Your task to perform on an android device: open app "AliExpress" (install if not already installed) Image 0: 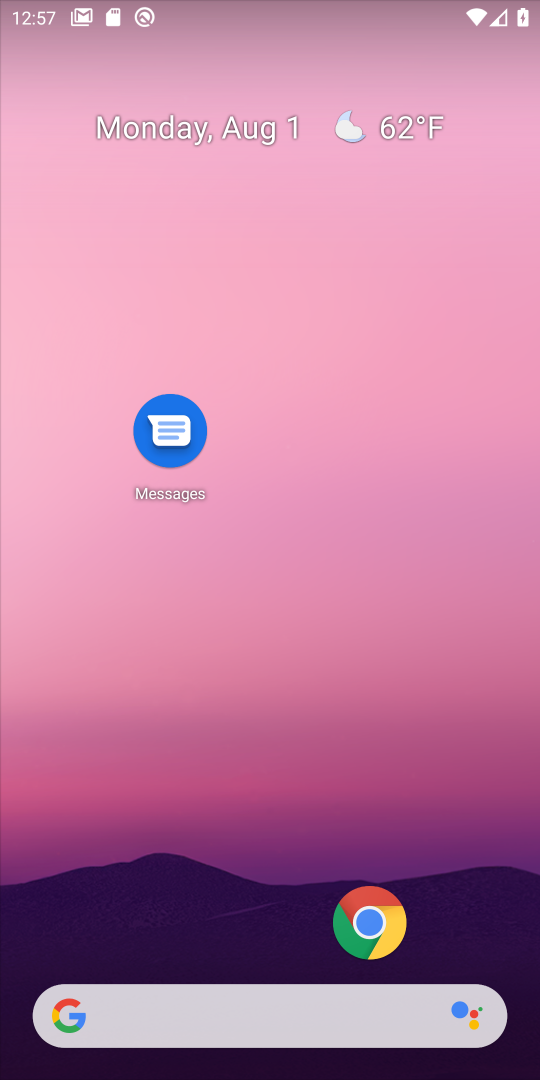
Step 0: drag from (235, 915) to (255, 287)
Your task to perform on an android device: open app "AliExpress" (install if not already installed) Image 1: 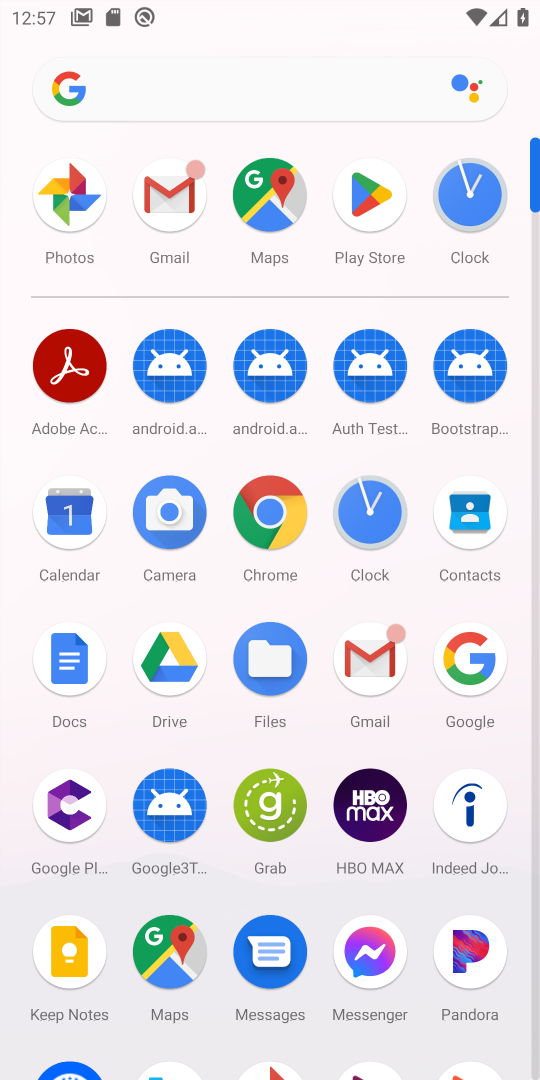
Step 1: click (379, 217)
Your task to perform on an android device: open app "AliExpress" (install if not already installed) Image 2: 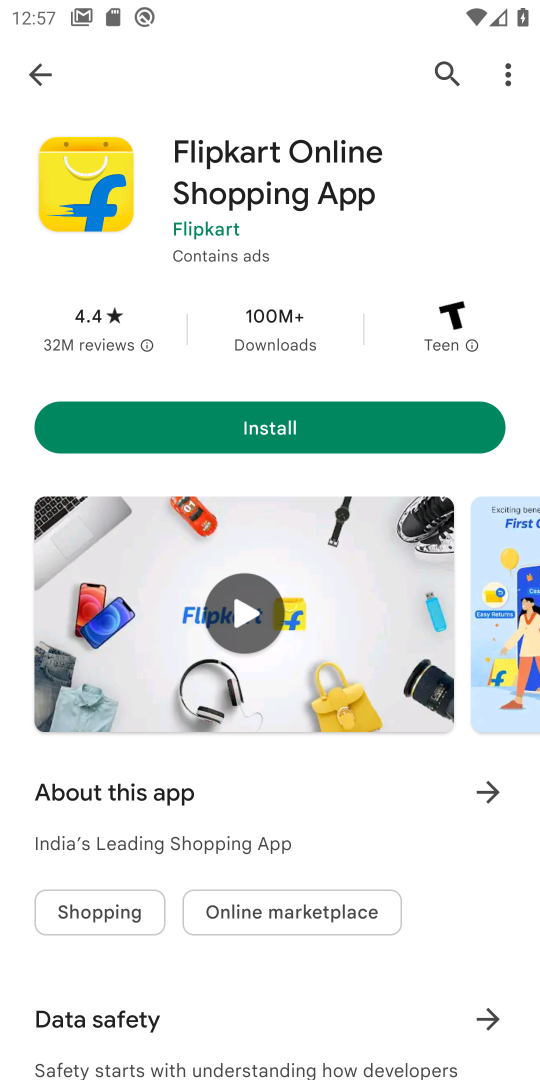
Step 2: click (431, 73)
Your task to perform on an android device: open app "AliExpress" (install if not already installed) Image 3: 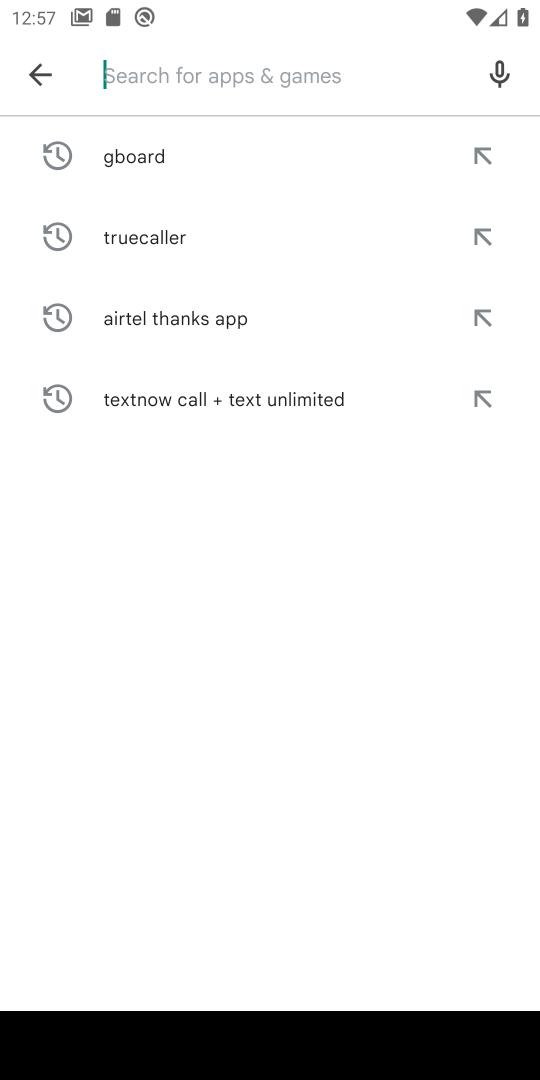
Step 3: type "AliExpress"
Your task to perform on an android device: open app "AliExpress" (install if not already installed) Image 4: 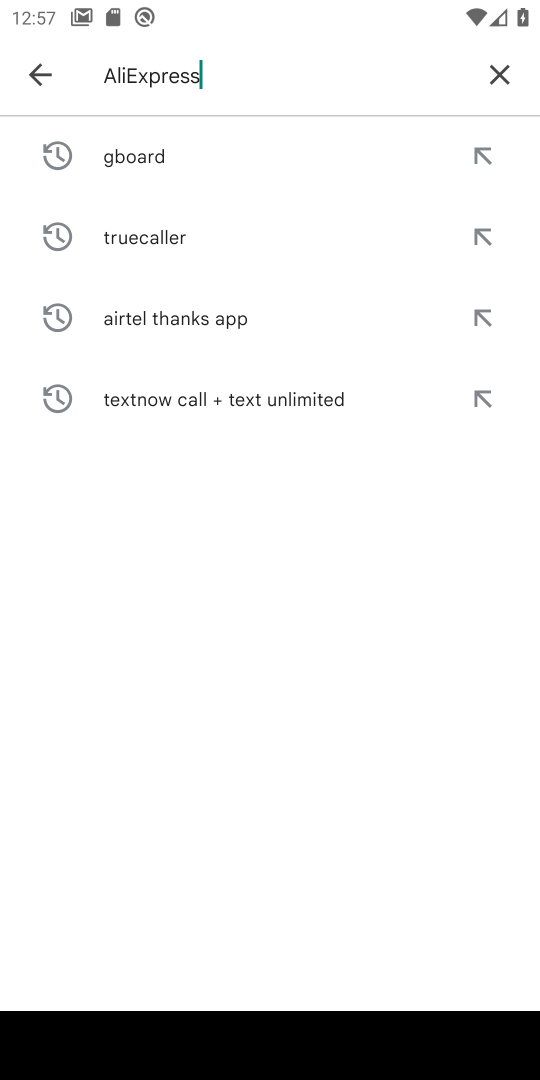
Step 4: type ""
Your task to perform on an android device: open app "AliExpress" (install if not already installed) Image 5: 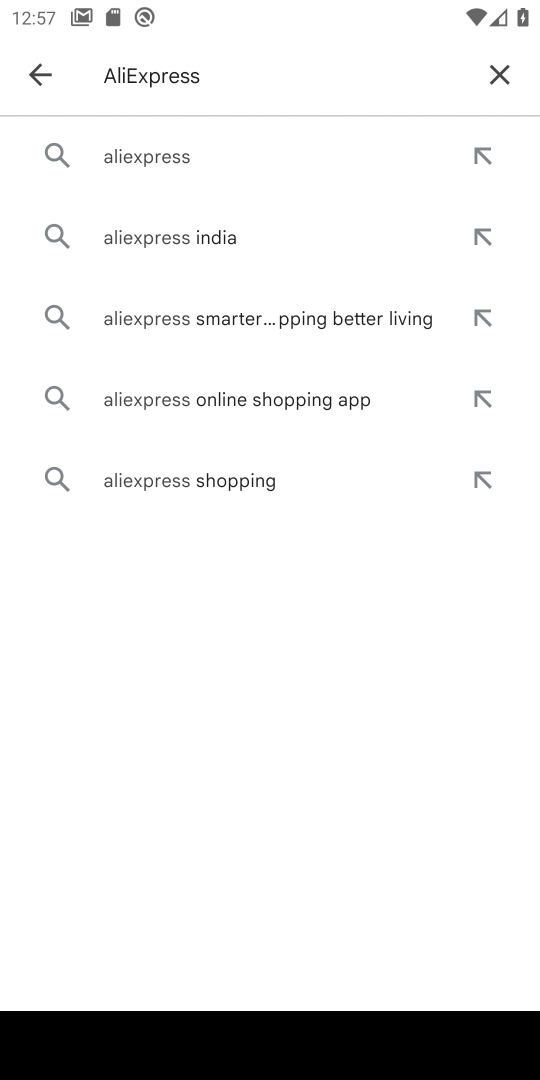
Step 5: click (197, 172)
Your task to perform on an android device: open app "AliExpress" (install if not already installed) Image 6: 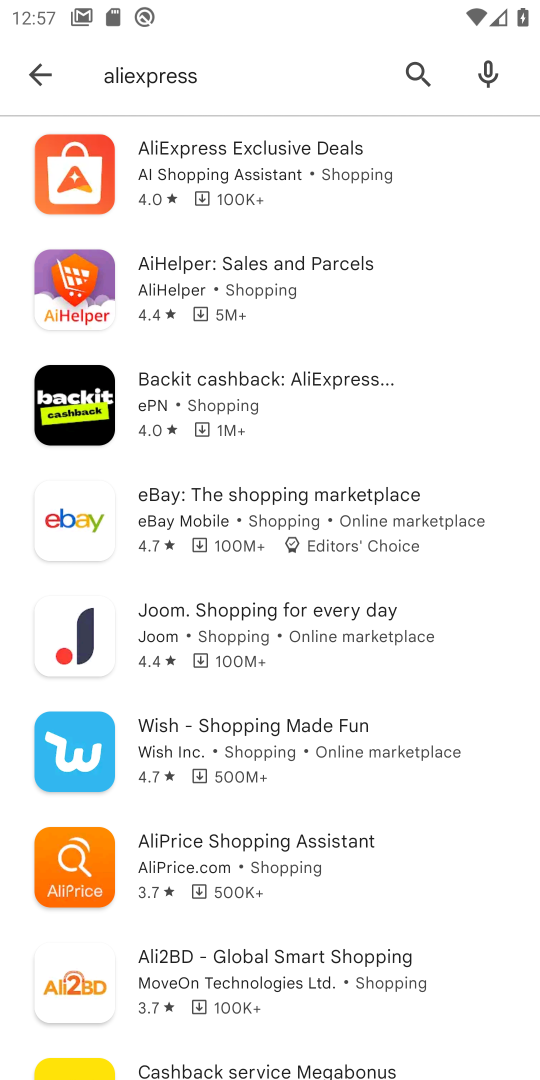
Step 6: click (298, 188)
Your task to perform on an android device: open app "AliExpress" (install if not already installed) Image 7: 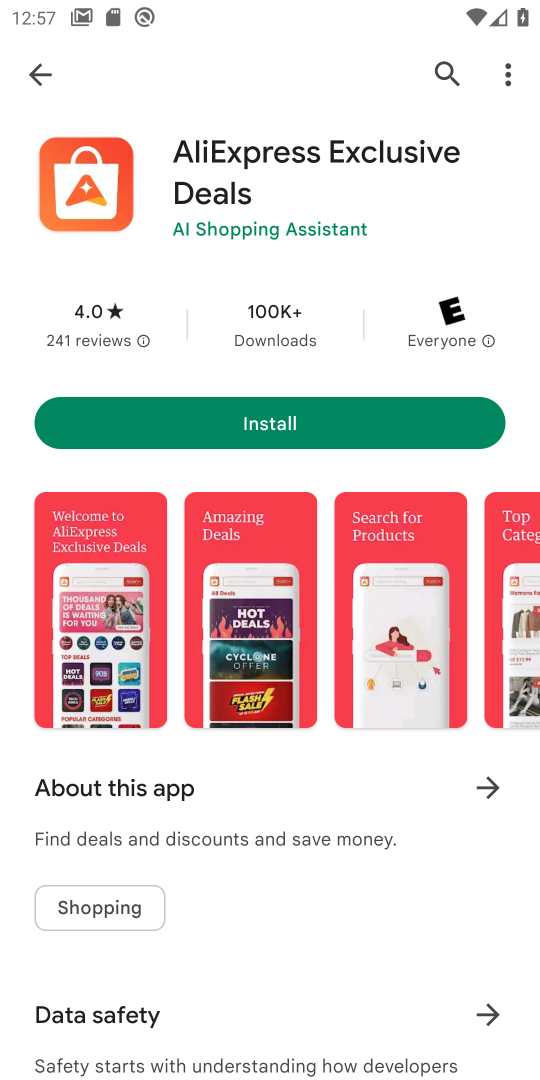
Step 7: click (275, 423)
Your task to perform on an android device: open app "AliExpress" (install if not already installed) Image 8: 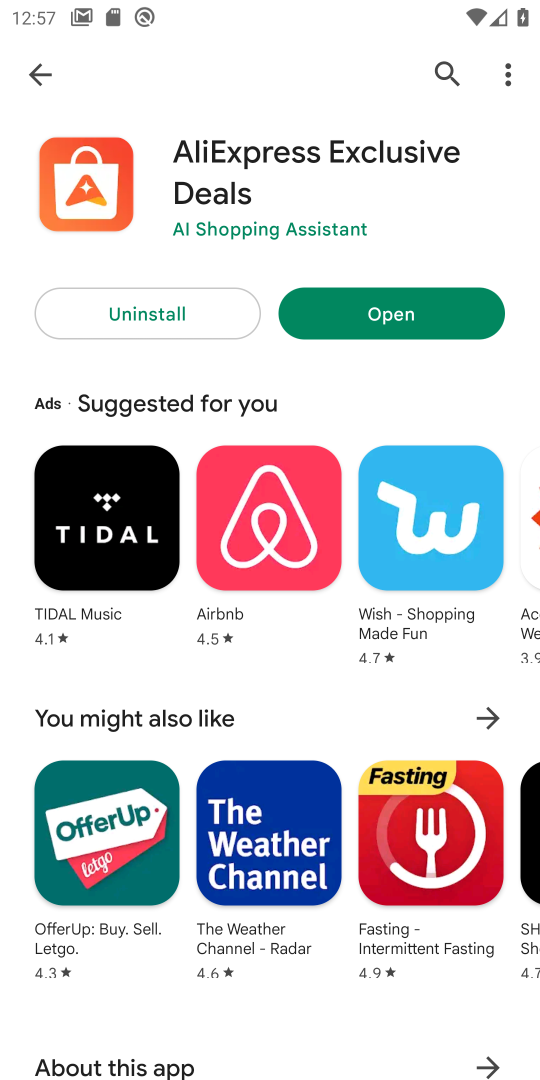
Step 8: click (345, 317)
Your task to perform on an android device: open app "AliExpress" (install if not already installed) Image 9: 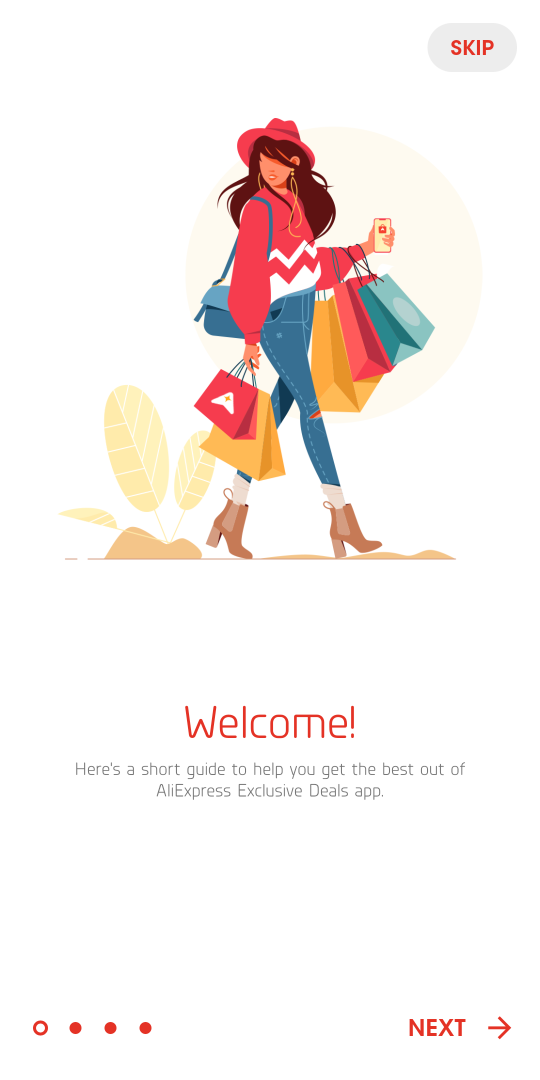
Step 9: task complete